Your task to perform on an android device: What's the weather today? Image 0: 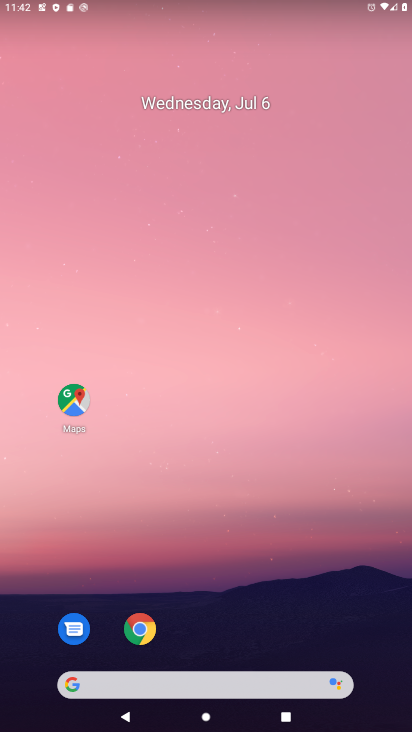
Step 0: drag from (215, 625) to (186, 121)
Your task to perform on an android device: What's the weather today? Image 1: 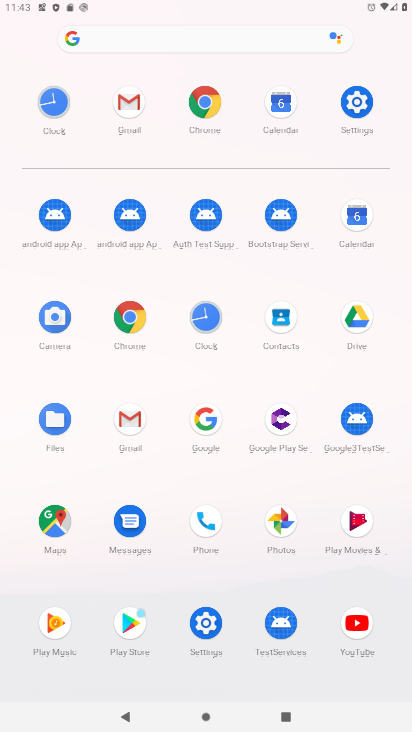
Step 1: click (207, 424)
Your task to perform on an android device: What's the weather today? Image 2: 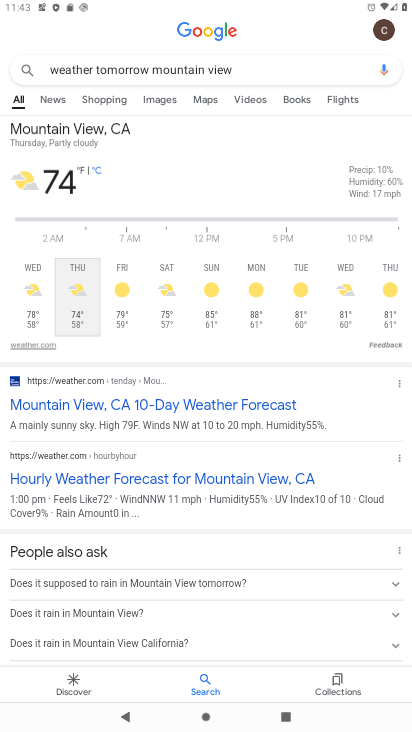
Step 2: click (269, 63)
Your task to perform on an android device: What's the weather today? Image 3: 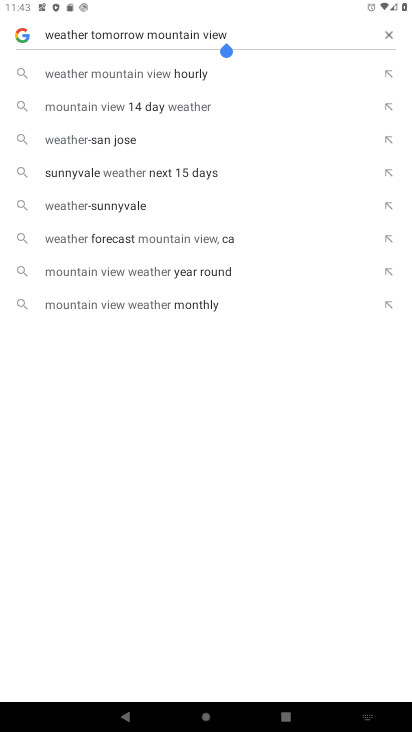
Step 3: click (386, 38)
Your task to perform on an android device: What's the weather today? Image 4: 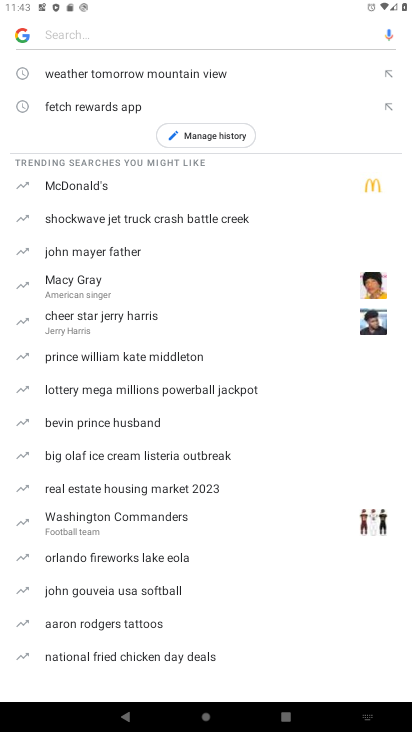
Step 4: type "weather"
Your task to perform on an android device: What's the weather today? Image 5: 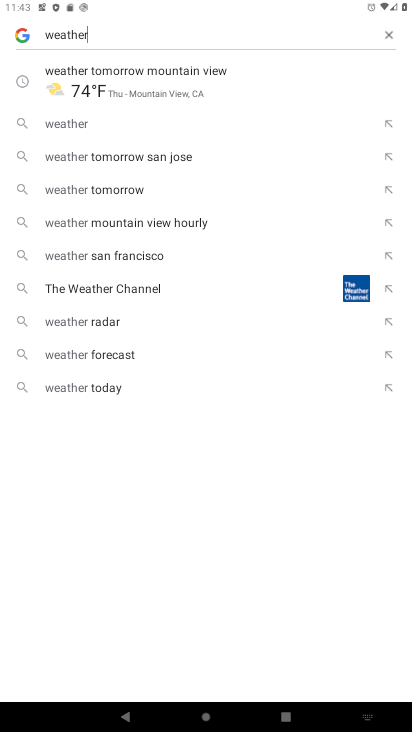
Step 5: click (87, 125)
Your task to perform on an android device: What's the weather today? Image 6: 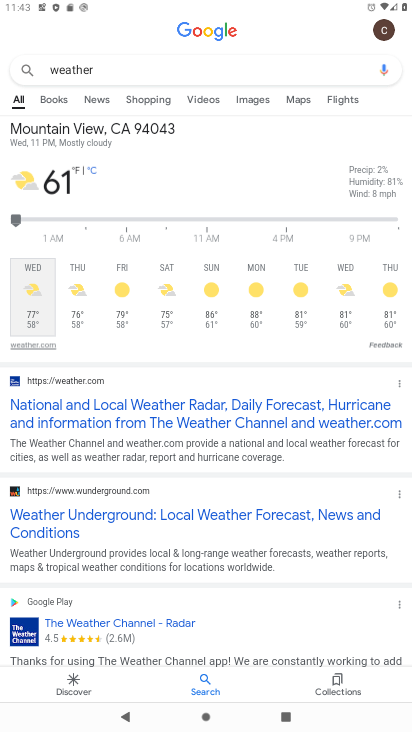
Step 6: task complete